Your task to perform on an android device: toggle airplane mode Image 0: 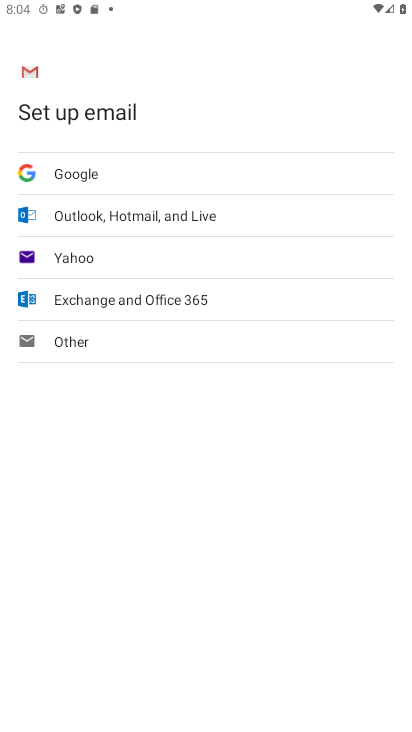
Step 0: press home button
Your task to perform on an android device: toggle airplane mode Image 1: 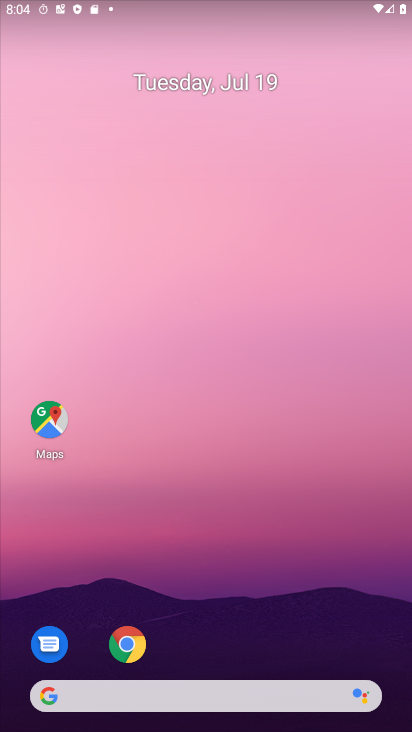
Step 1: drag from (13, 699) to (283, 25)
Your task to perform on an android device: toggle airplane mode Image 2: 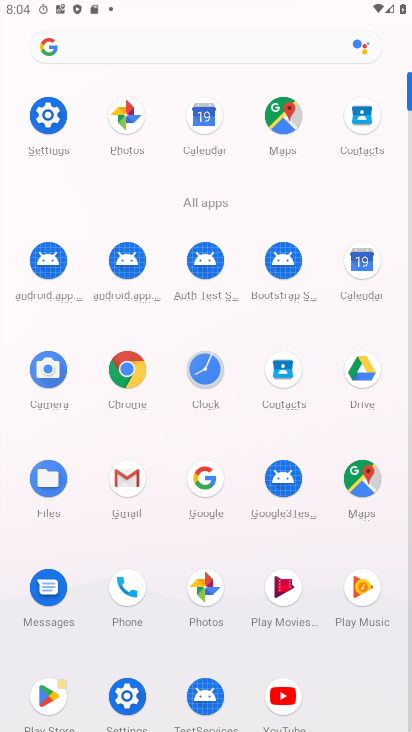
Step 2: click (124, 698)
Your task to perform on an android device: toggle airplane mode Image 3: 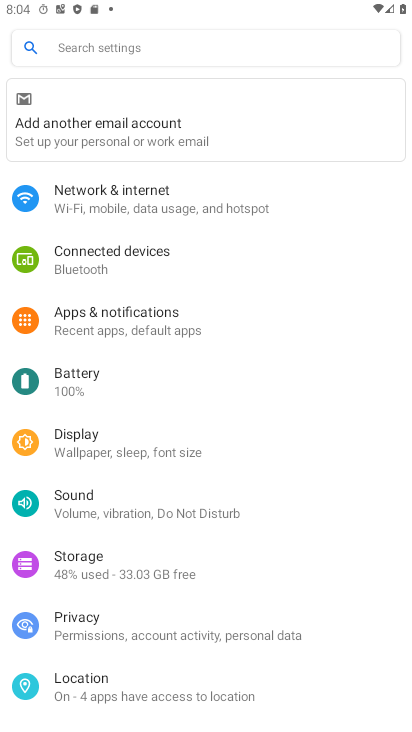
Step 3: click (131, 202)
Your task to perform on an android device: toggle airplane mode Image 4: 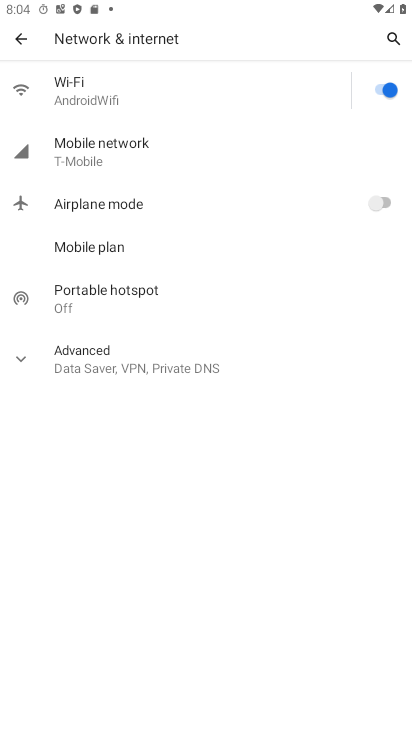
Step 4: task complete